Your task to perform on an android device: turn on showing notifications on the lock screen Image 0: 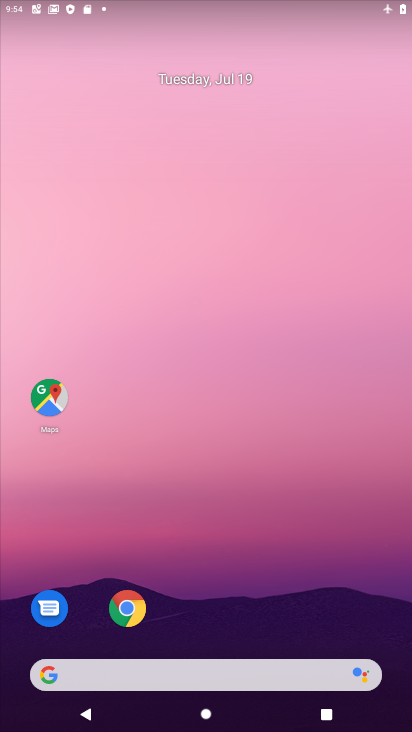
Step 0: drag from (319, 589) to (329, 31)
Your task to perform on an android device: turn on showing notifications on the lock screen Image 1: 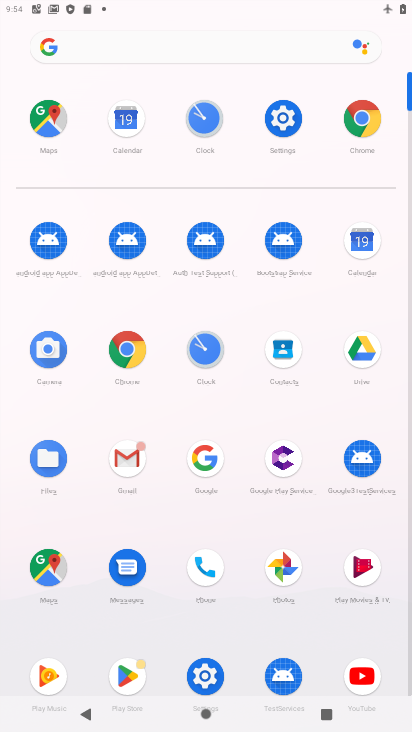
Step 1: click (295, 131)
Your task to perform on an android device: turn on showing notifications on the lock screen Image 2: 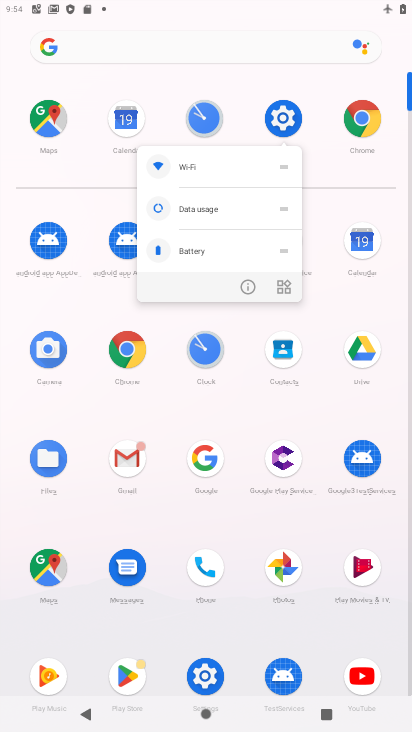
Step 2: click (292, 117)
Your task to perform on an android device: turn on showing notifications on the lock screen Image 3: 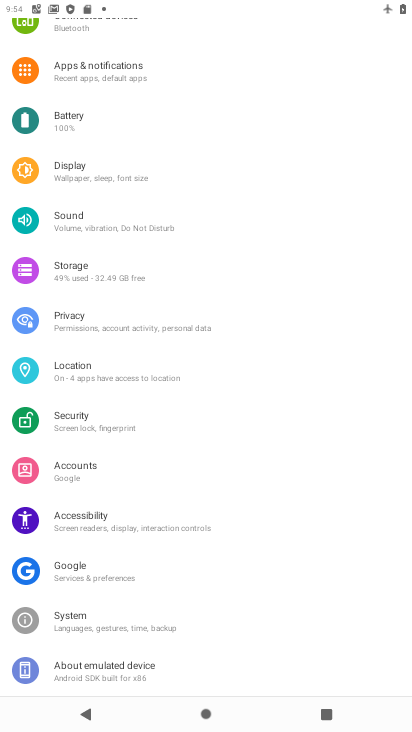
Step 3: click (94, 70)
Your task to perform on an android device: turn on showing notifications on the lock screen Image 4: 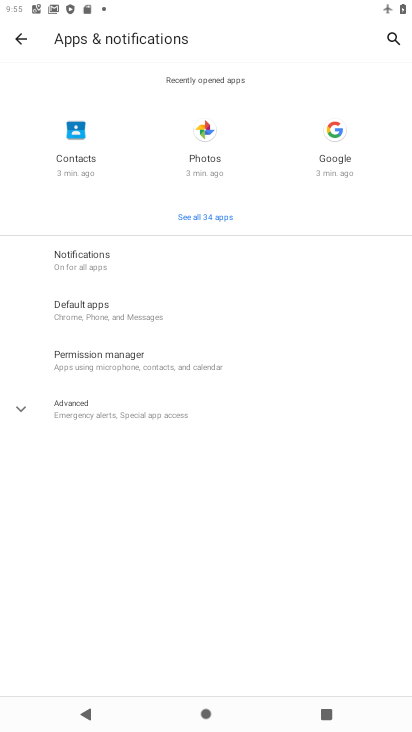
Step 4: click (88, 249)
Your task to perform on an android device: turn on showing notifications on the lock screen Image 5: 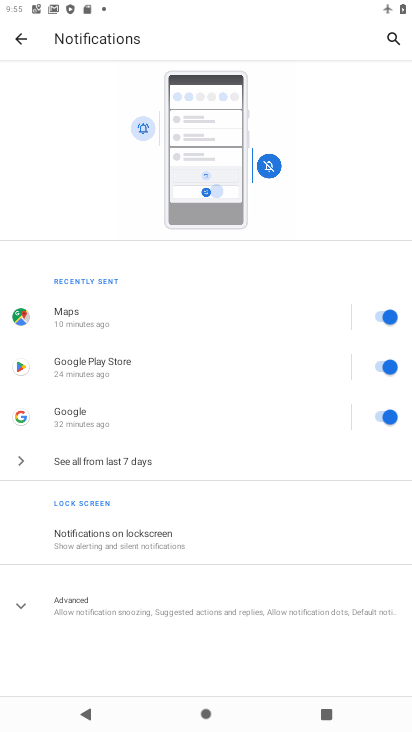
Step 5: drag from (141, 503) to (178, 432)
Your task to perform on an android device: turn on showing notifications on the lock screen Image 6: 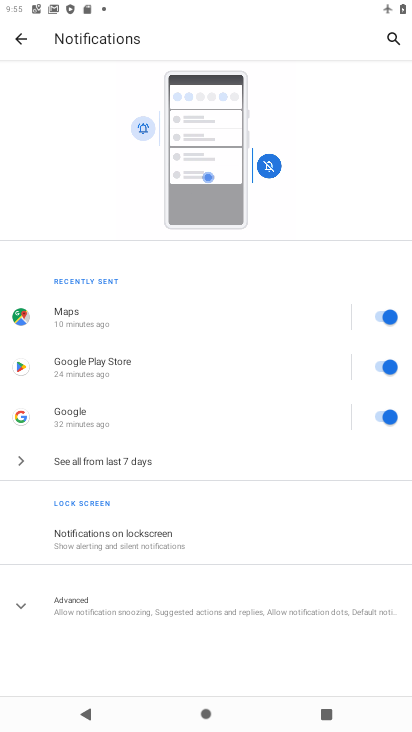
Step 6: click (167, 524)
Your task to perform on an android device: turn on showing notifications on the lock screen Image 7: 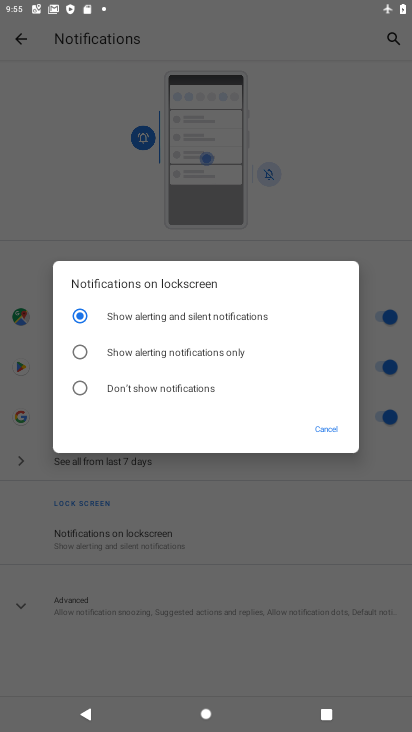
Step 7: click (235, 353)
Your task to perform on an android device: turn on showing notifications on the lock screen Image 8: 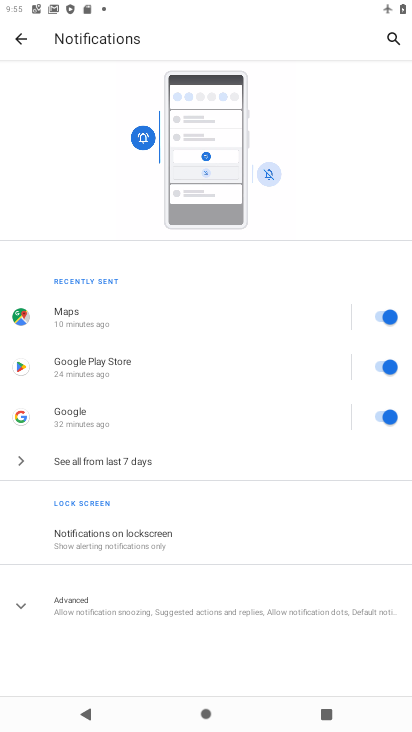
Step 8: task complete